Your task to perform on an android device: Add macbook to the cart on amazon Image 0: 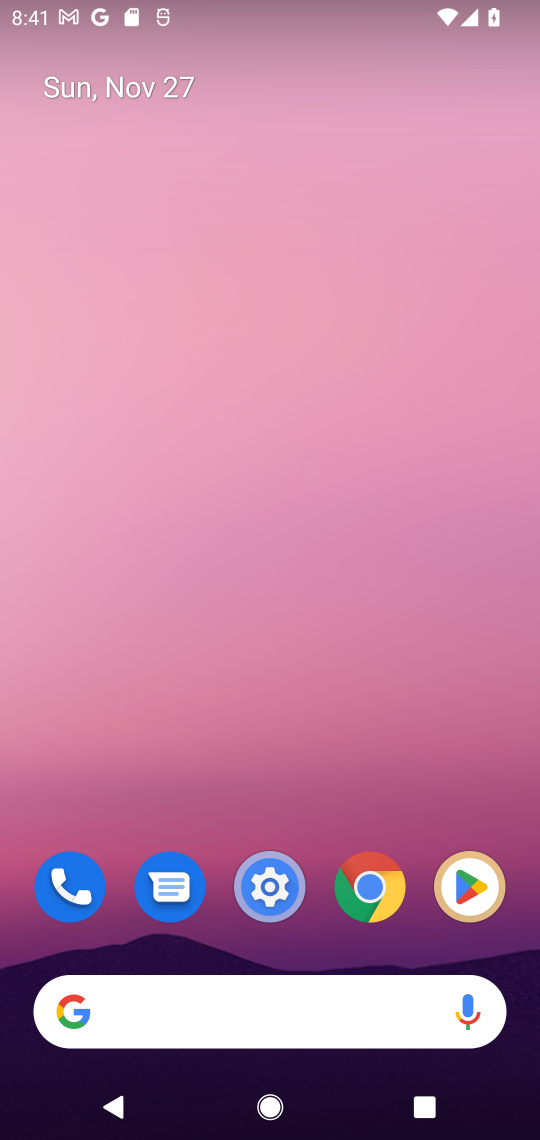
Step 0: click (326, 988)
Your task to perform on an android device: Add macbook to the cart on amazon Image 1: 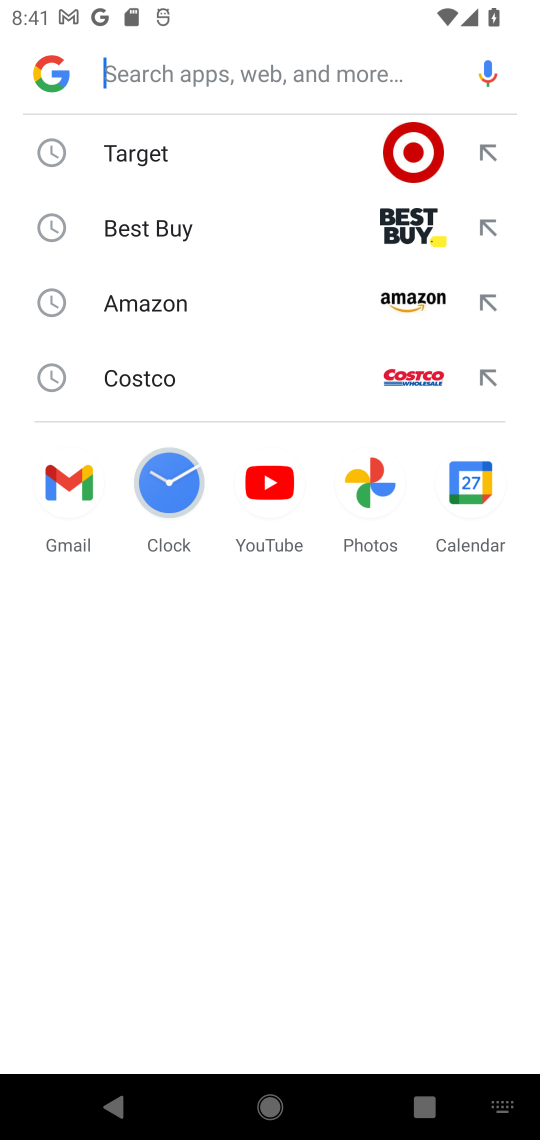
Step 1: click (194, 311)
Your task to perform on an android device: Add macbook to the cart on amazon Image 2: 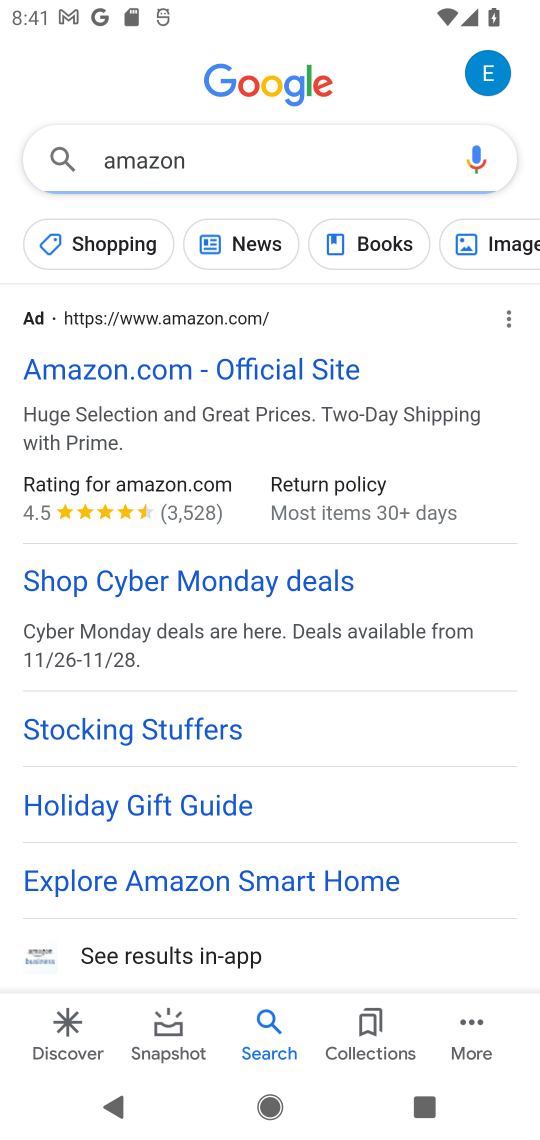
Step 2: click (115, 380)
Your task to perform on an android device: Add macbook to the cart on amazon Image 3: 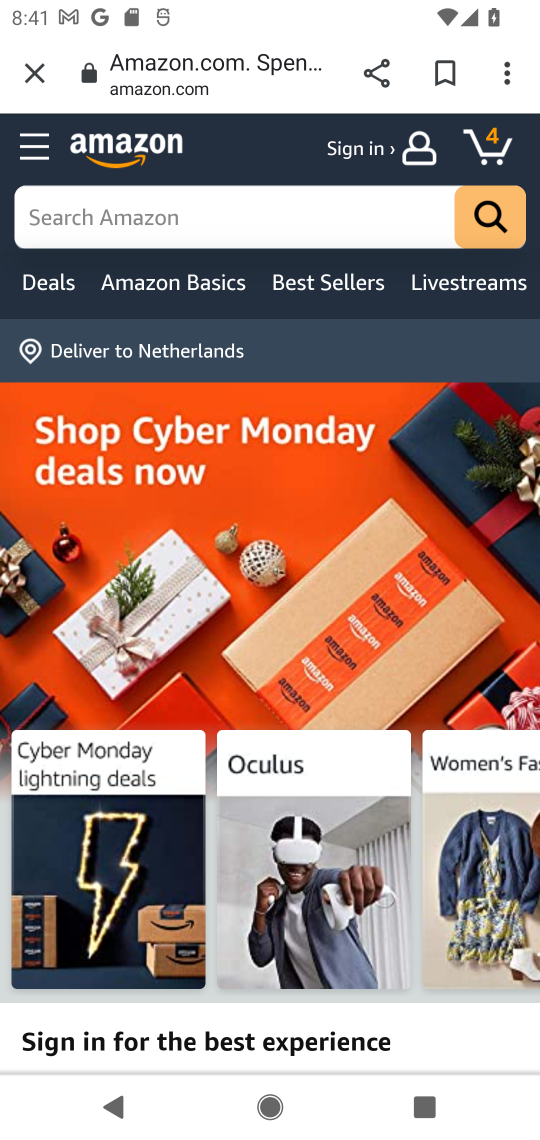
Step 3: click (232, 229)
Your task to perform on an android device: Add macbook to the cart on amazon Image 4: 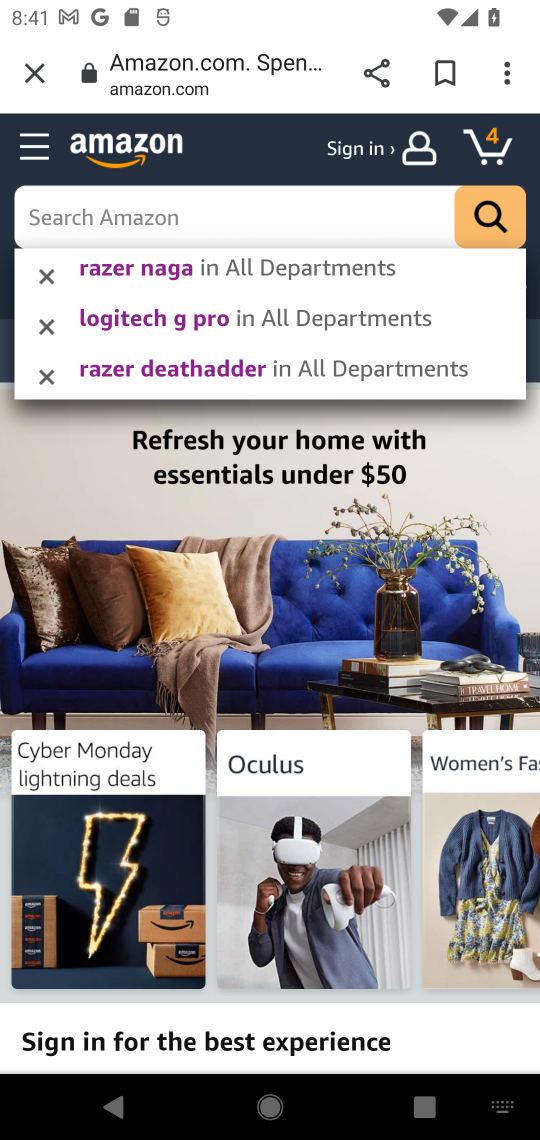
Step 4: type "macbook"
Your task to perform on an android device: Add macbook to the cart on amazon Image 5: 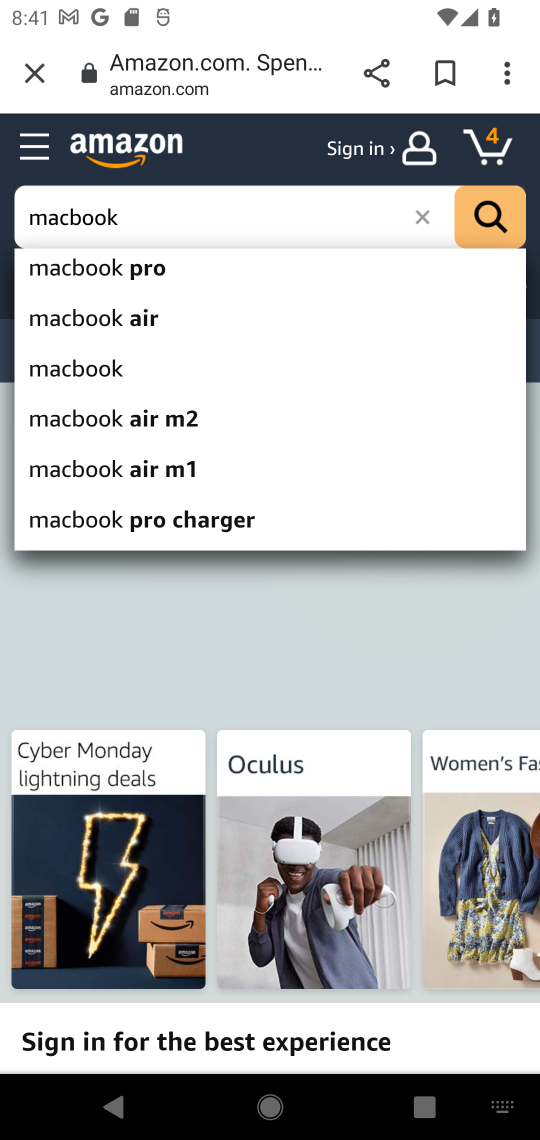
Step 5: click (83, 257)
Your task to perform on an android device: Add macbook to the cart on amazon Image 6: 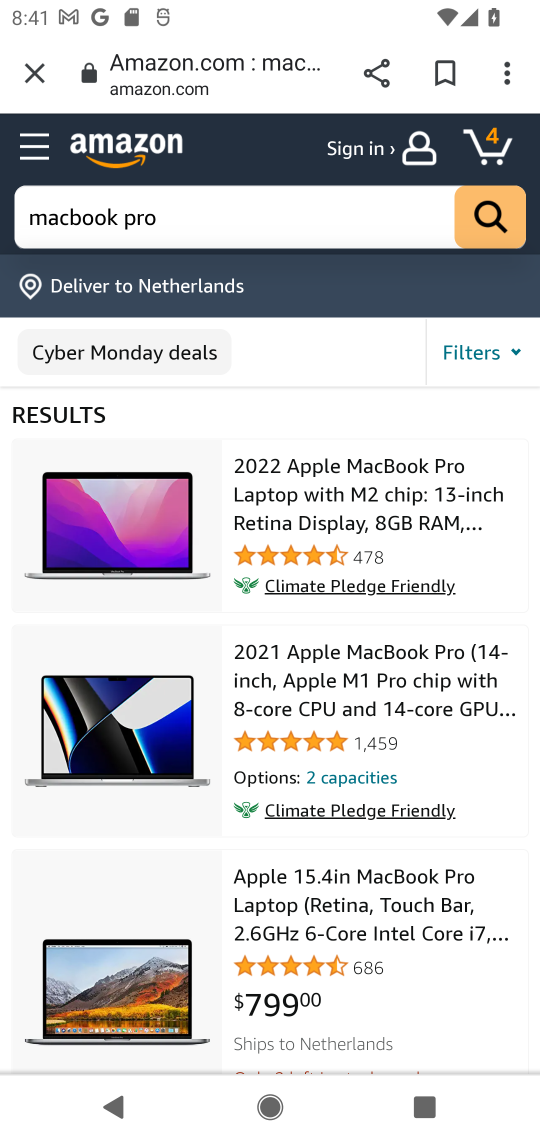
Step 6: click (320, 515)
Your task to perform on an android device: Add macbook to the cart on amazon Image 7: 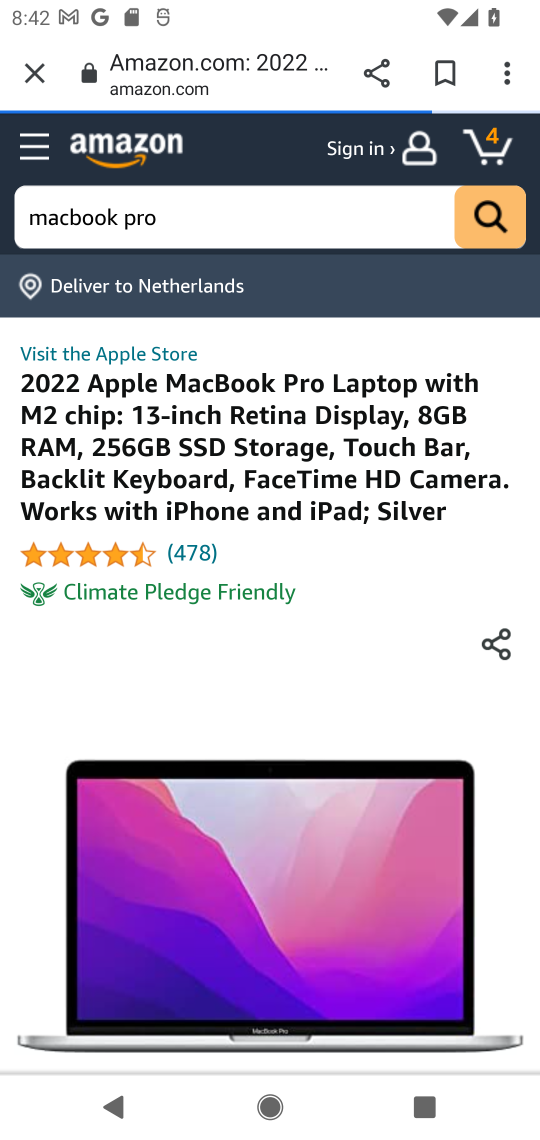
Step 7: drag from (333, 669) to (334, 290)
Your task to perform on an android device: Add macbook to the cart on amazon Image 8: 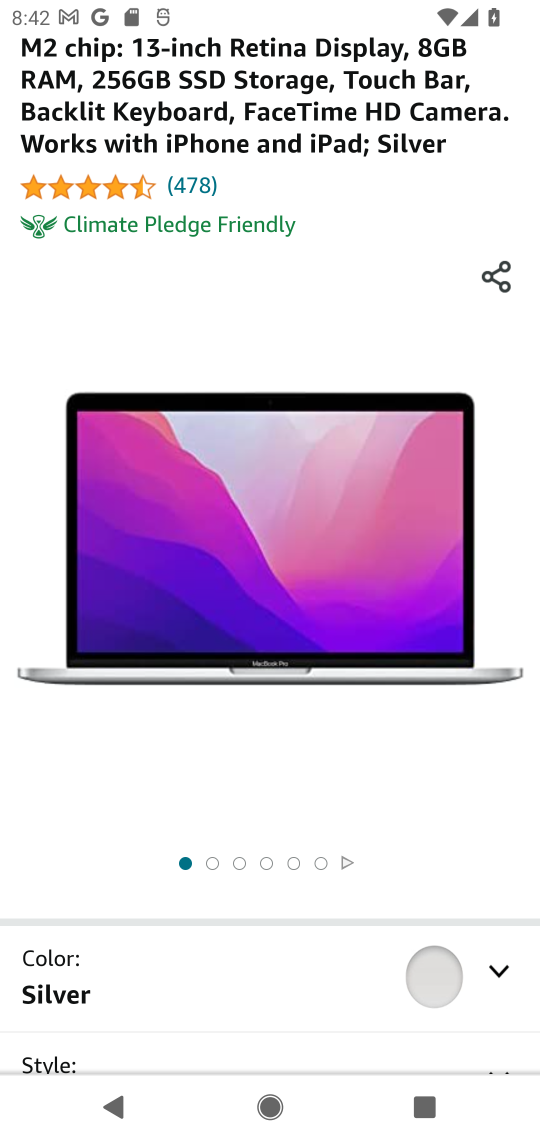
Step 8: drag from (247, 948) to (251, 360)
Your task to perform on an android device: Add macbook to the cart on amazon Image 9: 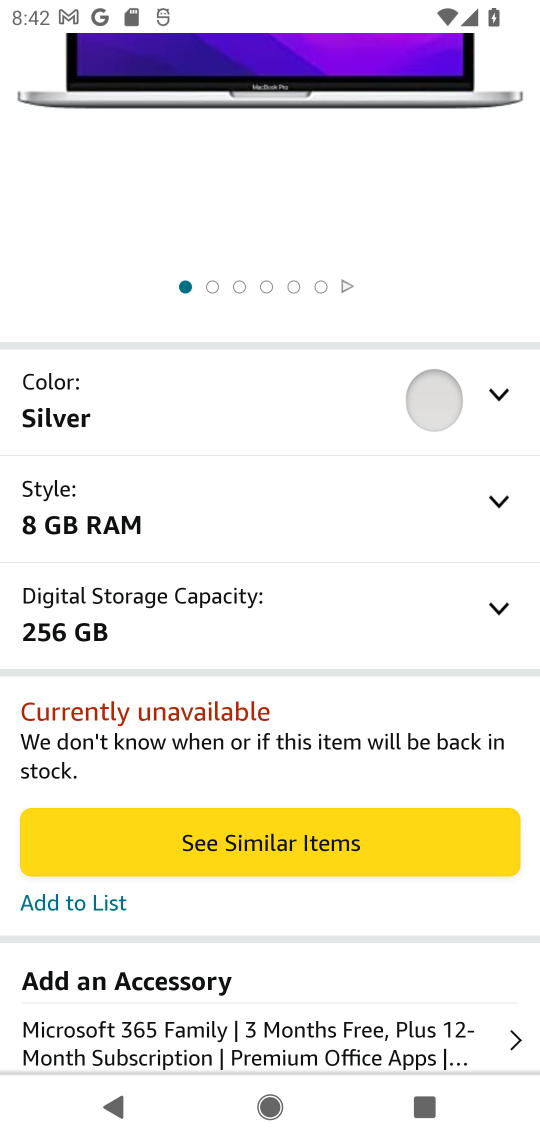
Step 9: click (384, 863)
Your task to perform on an android device: Add macbook to the cart on amazon Image 10: 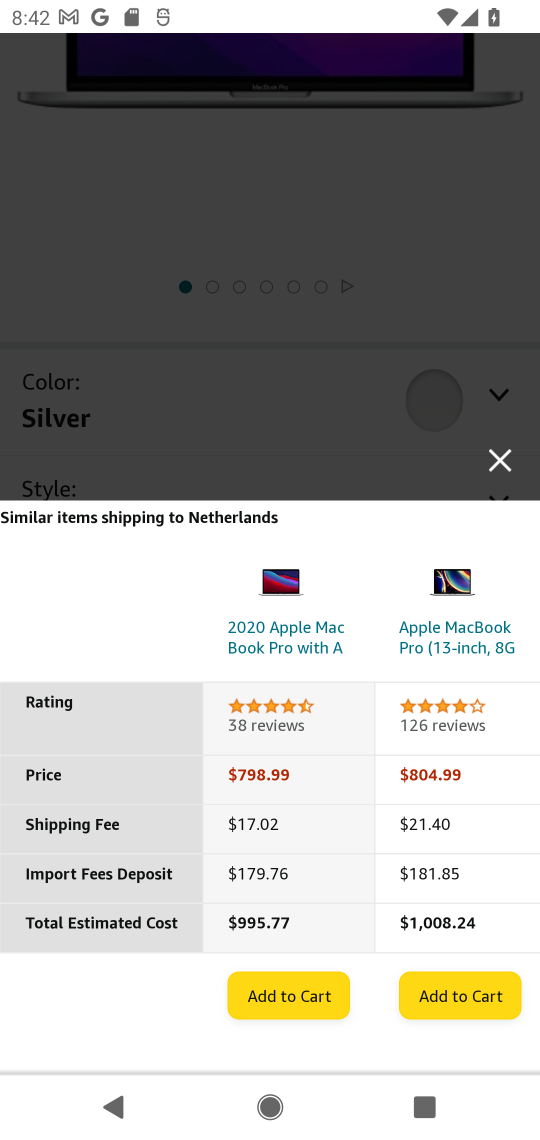
Step 10: task complete